Your task to perform on an android device: turn smart compose on in the gmail app Image 0: 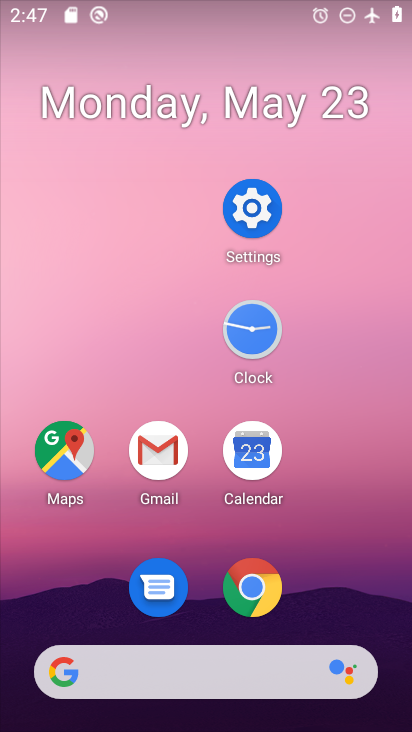
Step 0: click (169, 469)
Your task to perform on an android device: turn smart compose on in the gmail app Image 1: 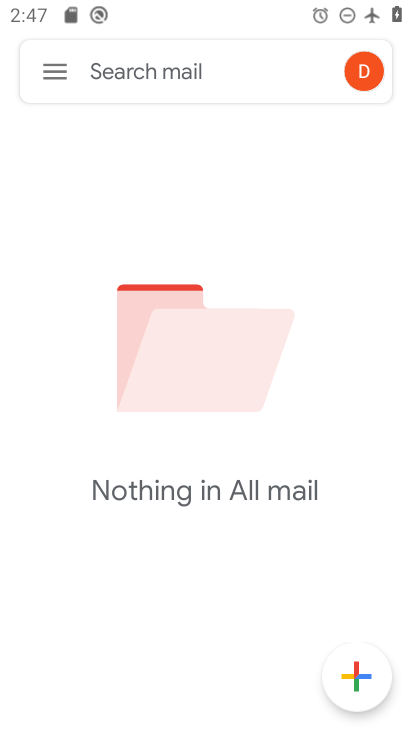
Step 1: click (50, 83)
Your task to perform on an android device: turn smart compose on in the gmail app Image 2: 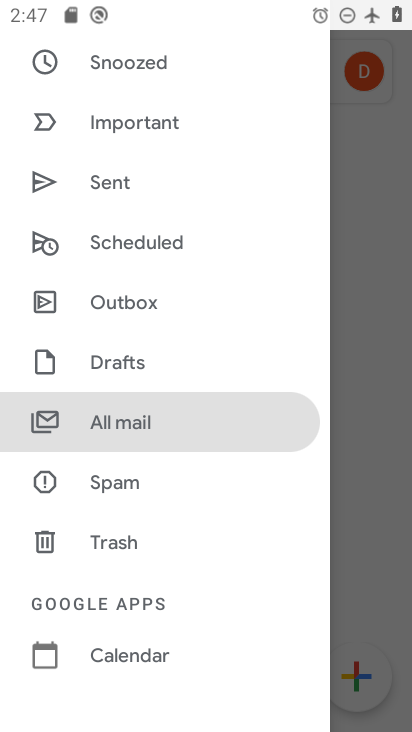
Step 2: drag from (167, 584) to (200, 234)
Your task to perform on an android device: turn smart compose on in the gmail app Image 3: 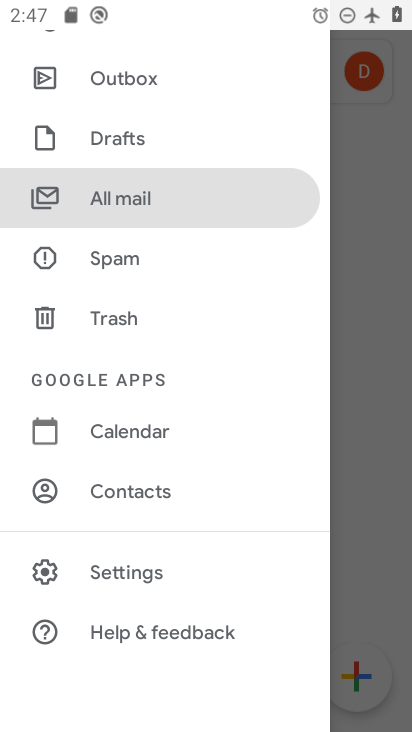
Step 3: click (170, 584)
Your task to perform on an android device: turn smart compose on in the gmail app Image 4: 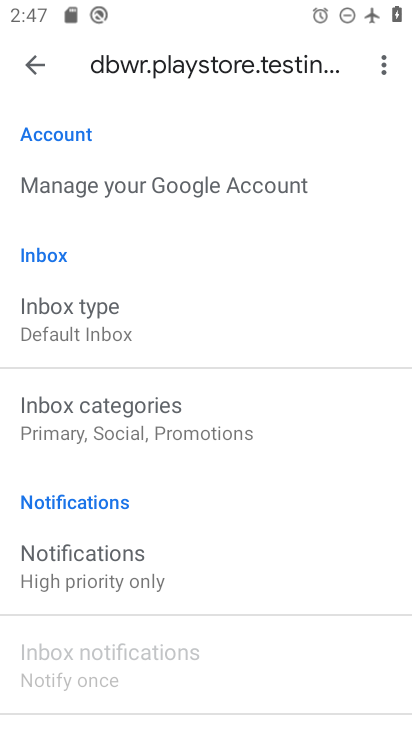
Step 4: task complete